Your task to perform on an android device: change text size in settings app Image 0: 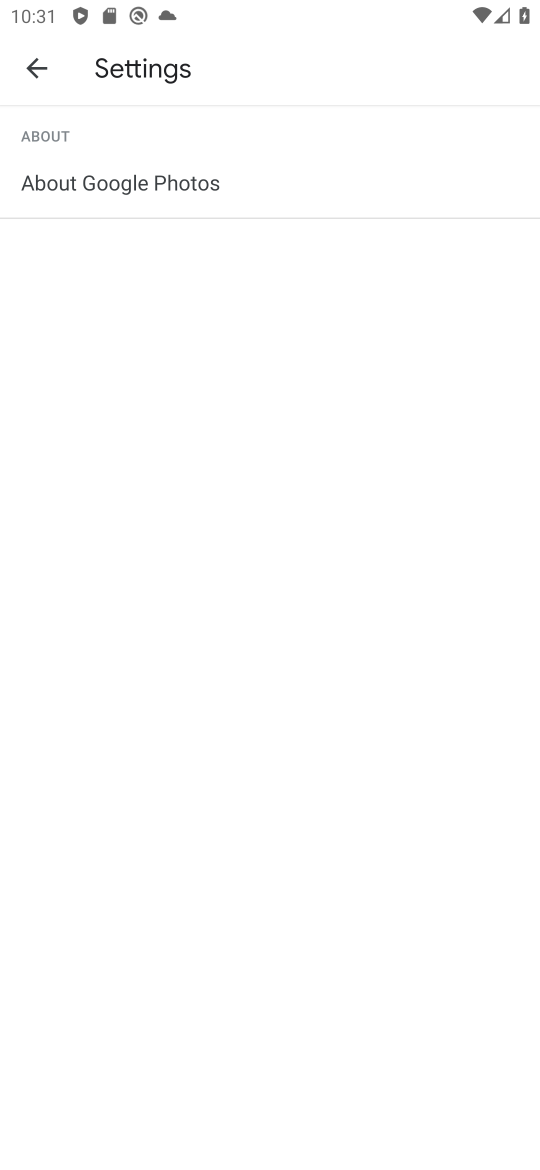
Step 0: press home button
Your task to perform on an android device: change text size in settings app Image 1: 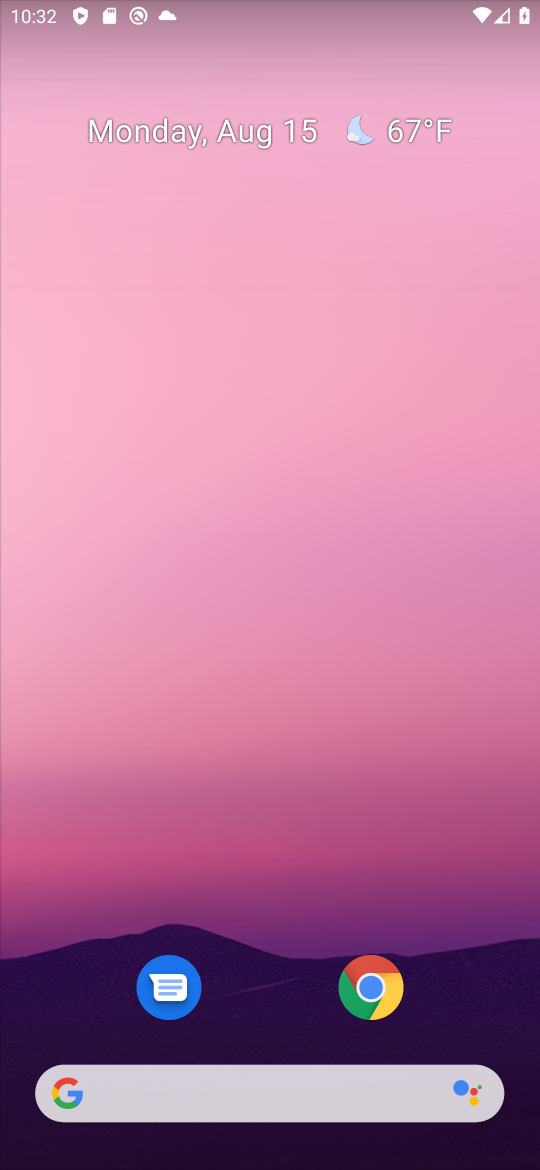
Step 1: drag from (311, 1039) to (103, 38)
Your task to perform on an android device: change text size in settings app Image 2: 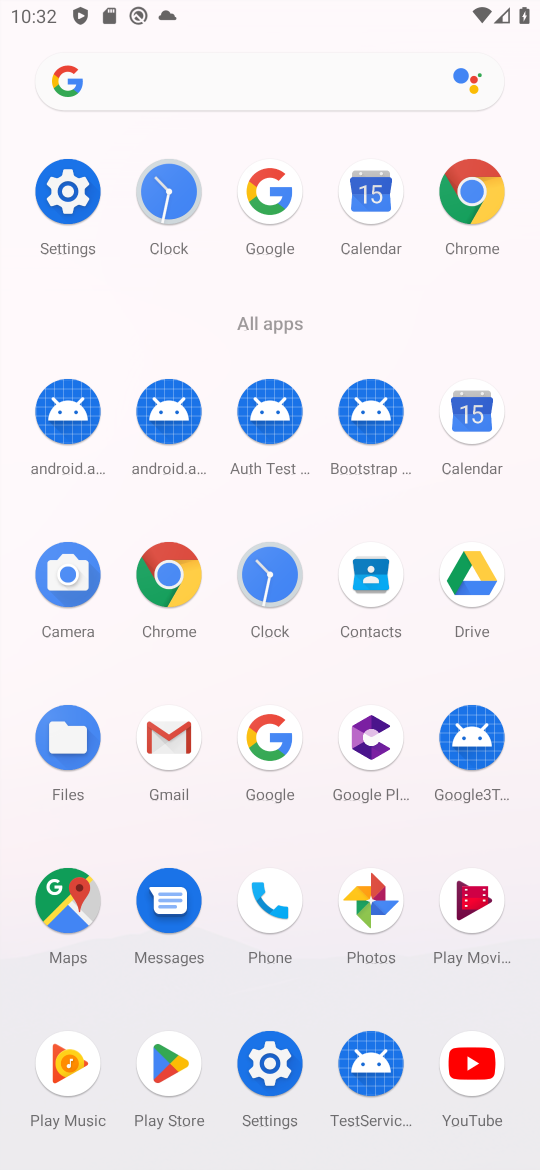
Step 2: click (265, 1069)
Your task to perform on an android device: change text size in settings app Image 3: 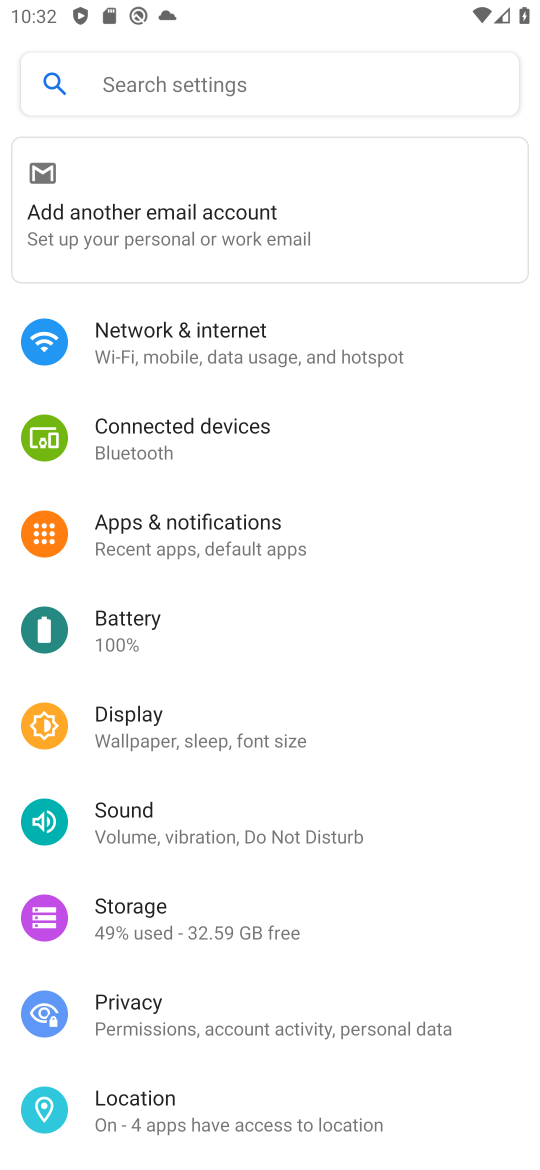
Step 3: click (125, 709)
Your task to perform on an android device: change text size in settings app Image 4: 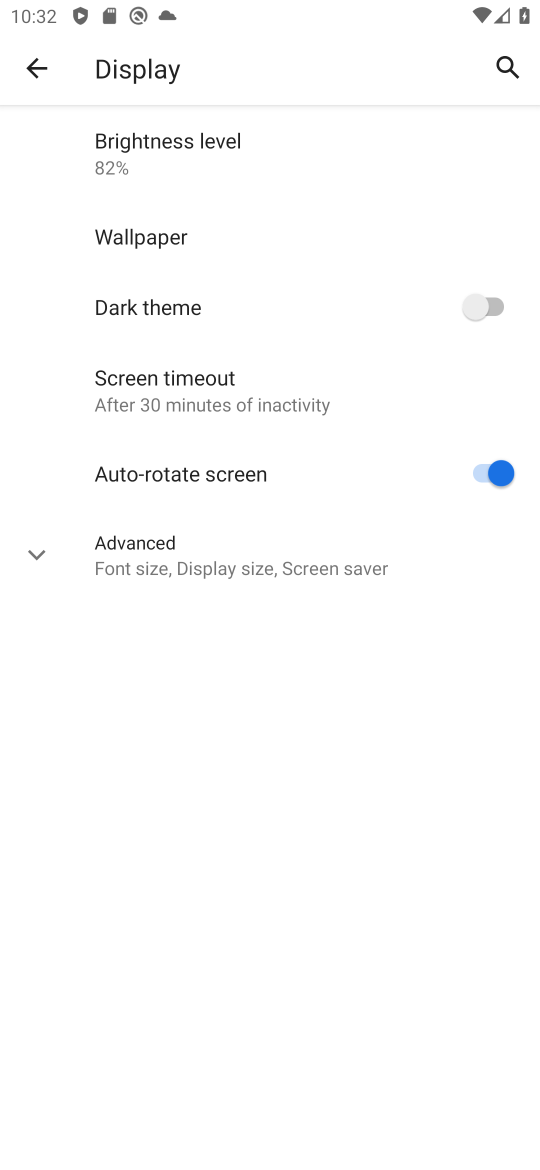
Step 4: click (104, 553)
Your task to perform on an android device: change text size in settings app Image 5: 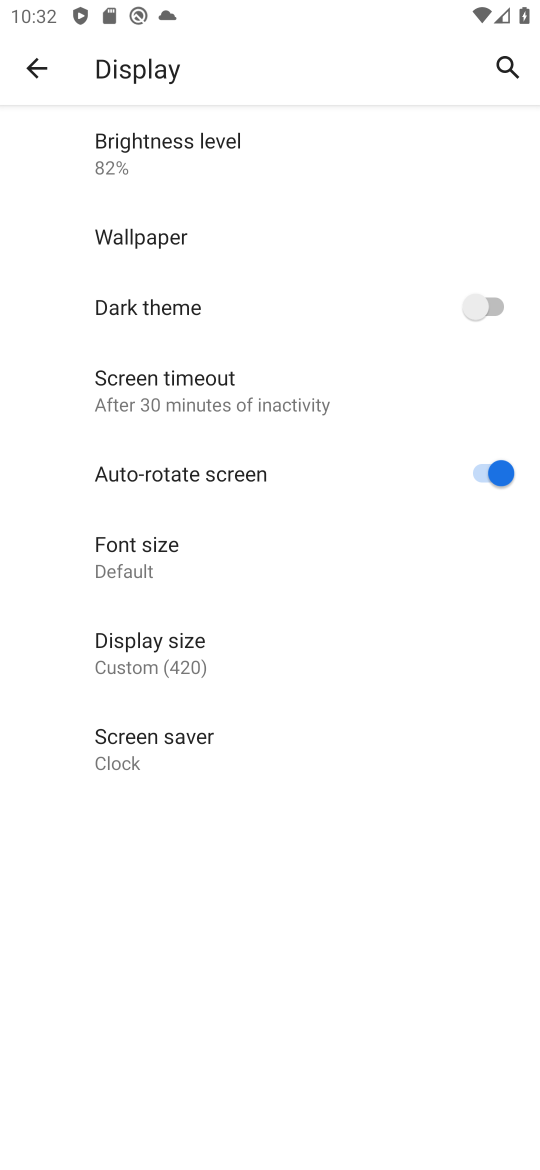
Step 5: click (108, 585)
Your task to perform on an android device: change text size in settings app Image 6: 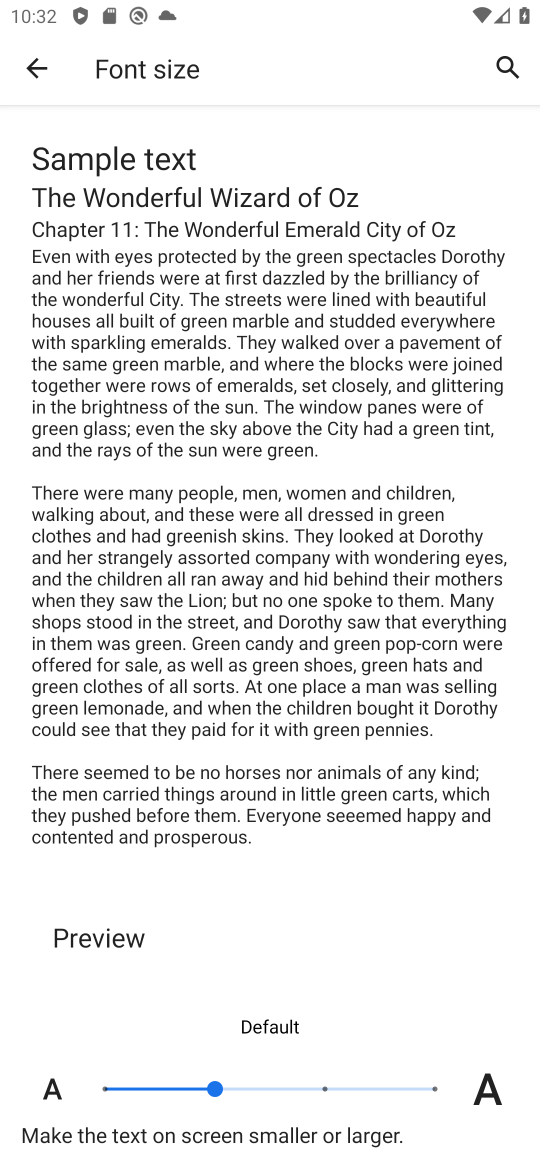
Step 6: click (318, 1086)
Your task to perform on an android device: change text size in settings app Image 7: 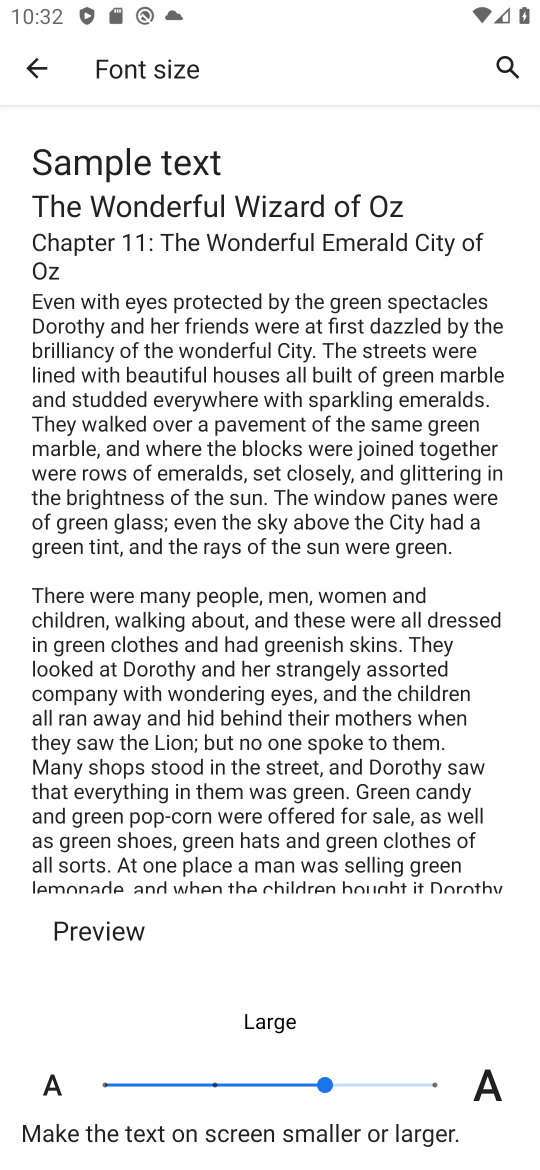
Step 7: task complete